Your task to perform on an android device: Open CNN.com Image 0: 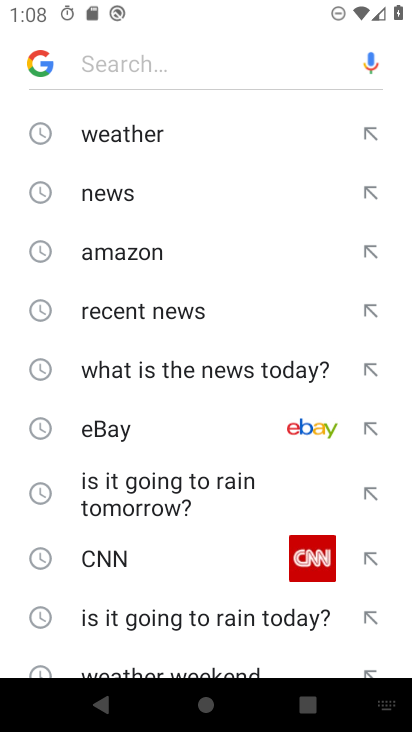
Step 0: press home button
Your task to perform on an android device: Open CNN.com Image 1: 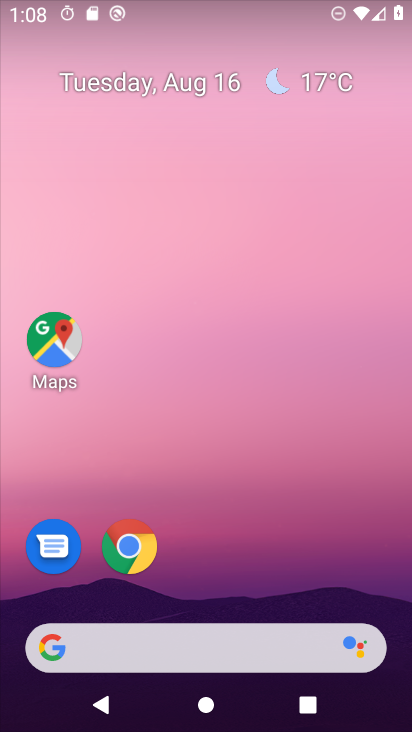
Step 1: drag from (206, 494) to (203, 208)
Your task to perform on an android device: Open CNN.com Image 2: 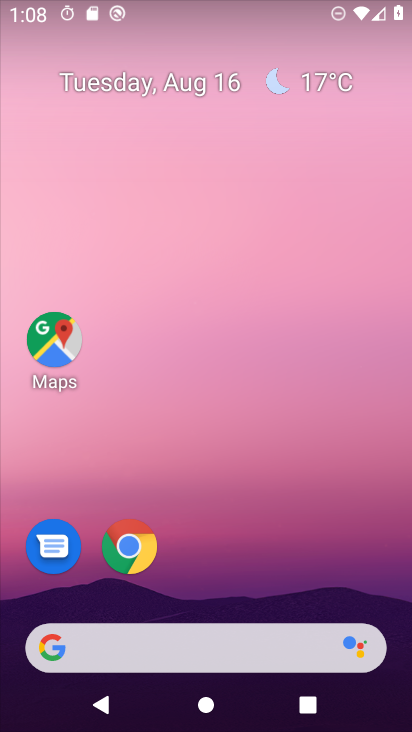
Step 2: click (120, 543)
Your task to perform on an android device: Open CNN.com Image 3: 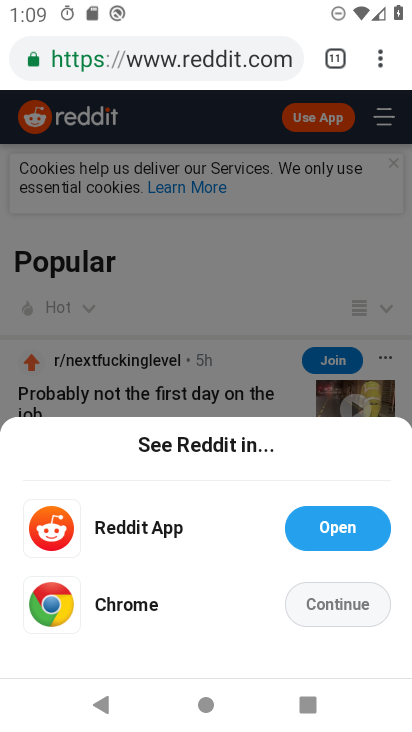
Step 3: drag from (383, 60) to (155, 126)
Your task to perform on an android device: Open CNN.com Image 4: 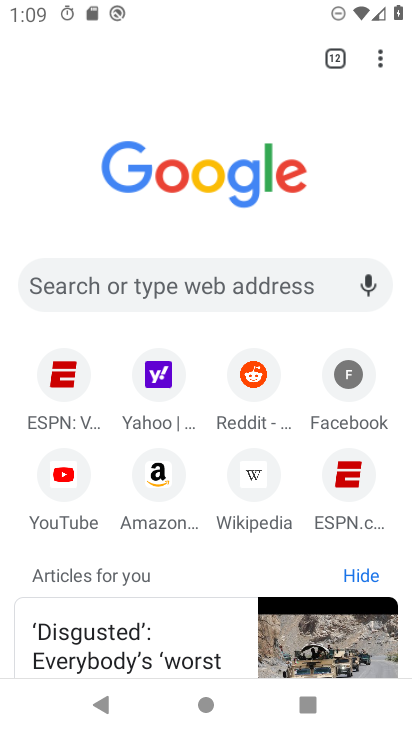
Step 4: click (169, 288)
Your task to perform on an android device: Open CNN.com Image 5: 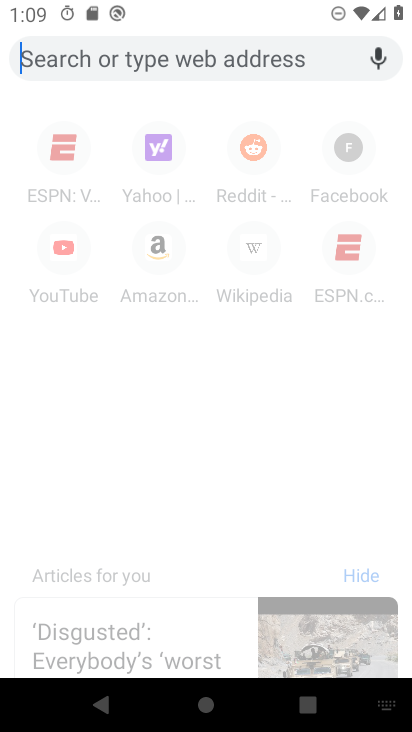
Step 5: type "CNN.com"
Your task to perform on an android device: Open CNN.com Image 6: 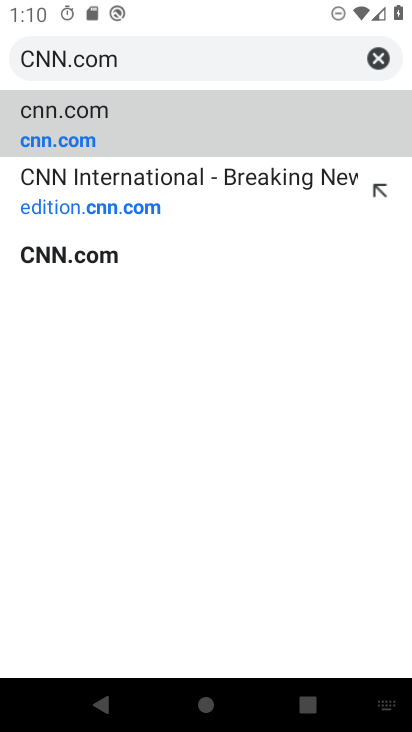
Step 6: click (55, 128)
Your task to perform on an android device: Open CNN.com Image 7: 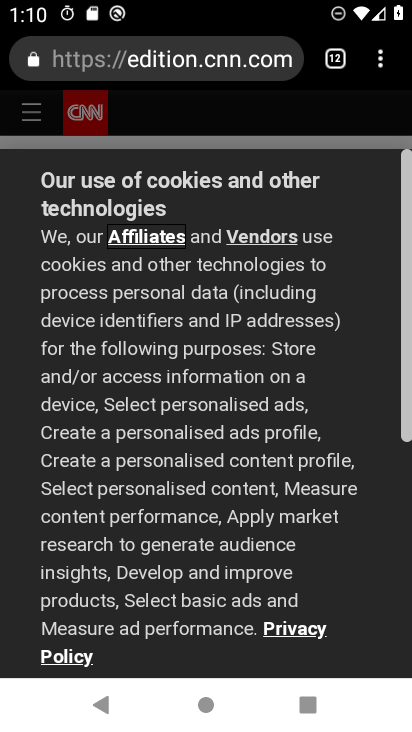
Step 7: task complete